Your task to perform on an android device: Go to display settings Image 0: 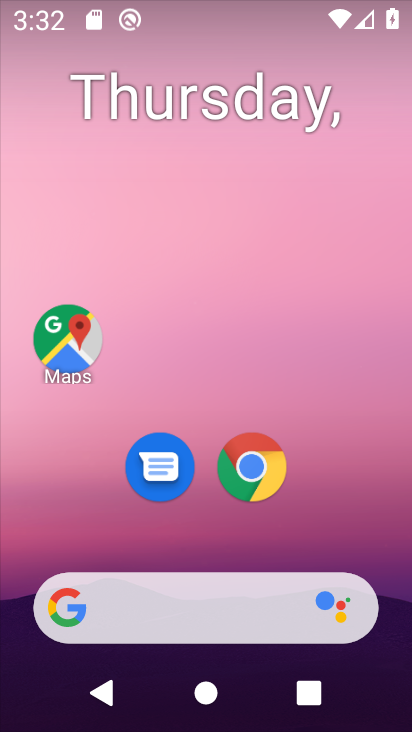
Step 0: click (273, 478)
Your task to perform on an android device: Go to display settings Image 1: 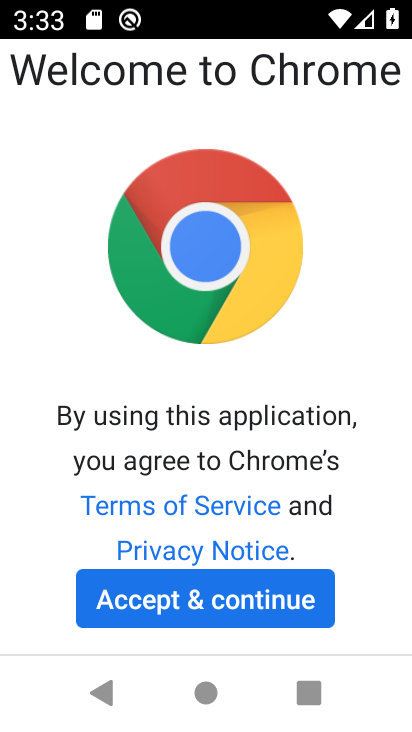
Step 1: press home button
Your task to perform on an android device: Go to display settings Image 2: 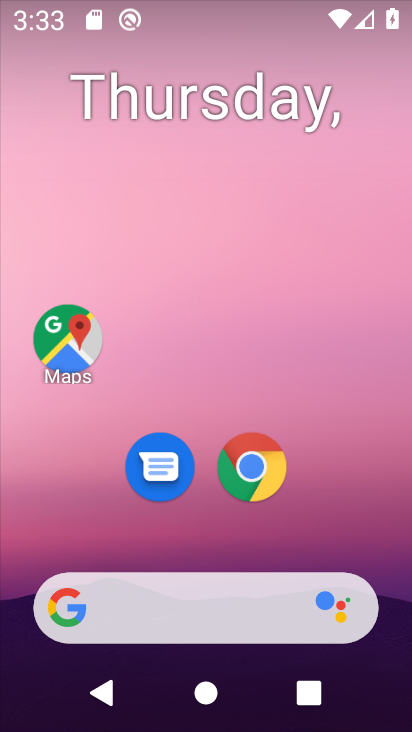
Step 2: drag from (170, 427) to (268, 10)
Your task to perform on an android device: Go to display settings Image 3: 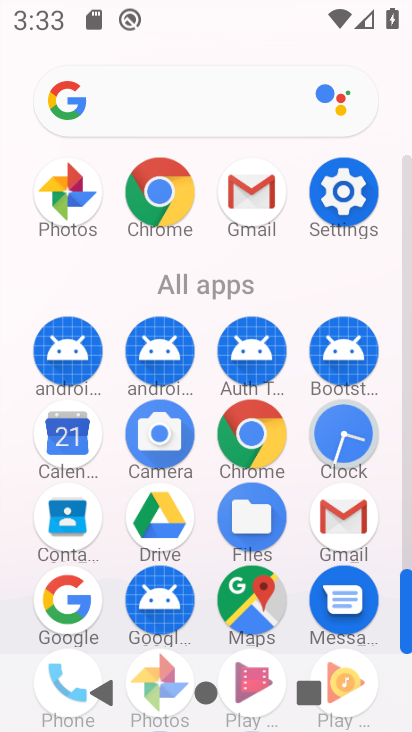
Step 3: click (355, 197)
Your task to perform on an android device: Go to display settings Image 4: 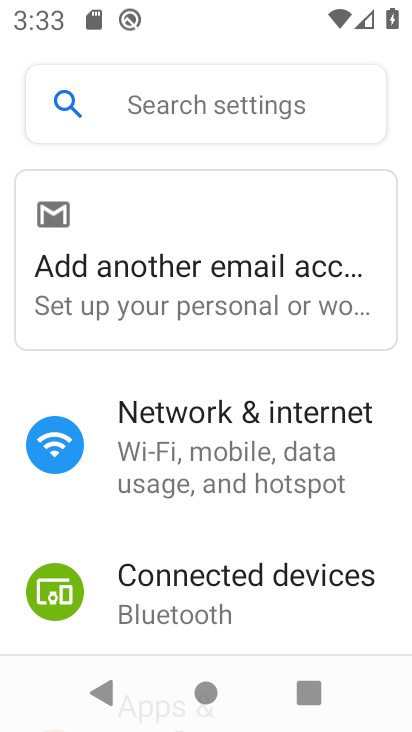
Step 4: drag from (170, 591) to (277, 219)
Your task to perform on an android device: Go to display settings Image 5: 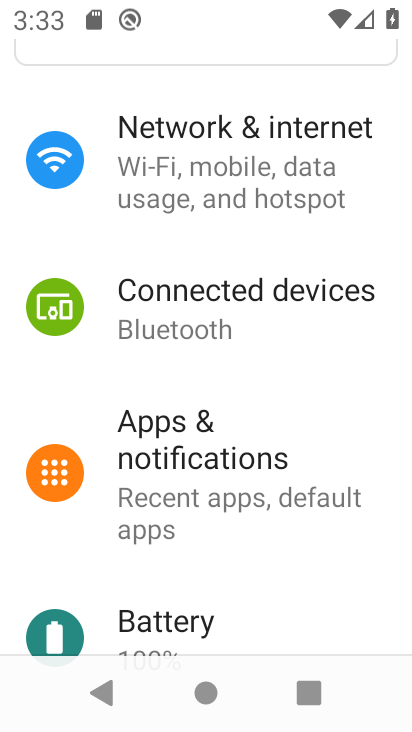
Step 5: drag from (238, 526) to (287, 177)
Your task to perform on an android device: Go to display settings Image 6: 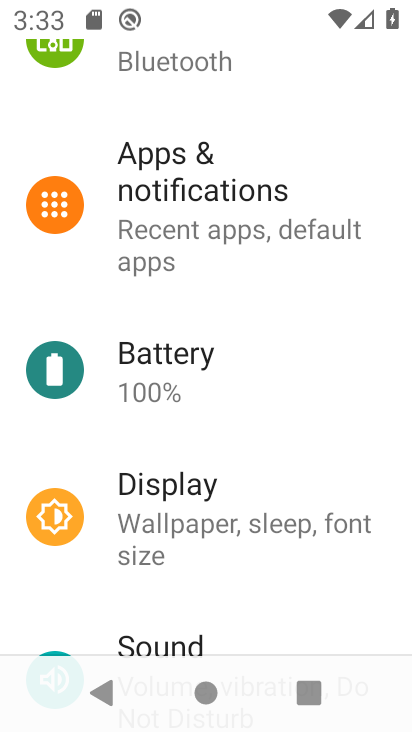
Step 6: click (170, 533)
Your task to perform on an android device: Go to display settings Image 7: 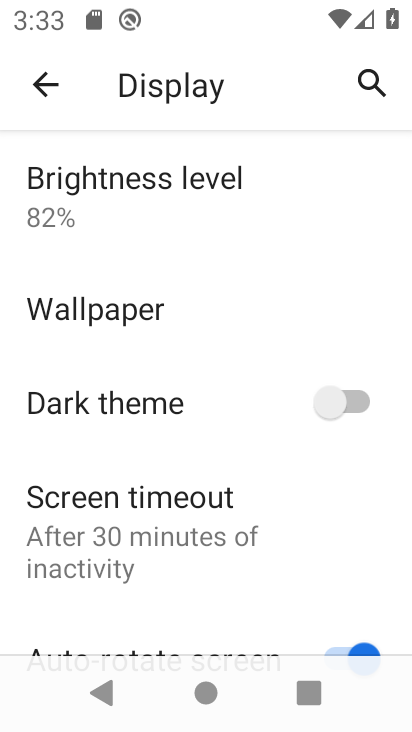
Step 7: task complete